Your task to perform on an android device: Go to notification settings Image 0: 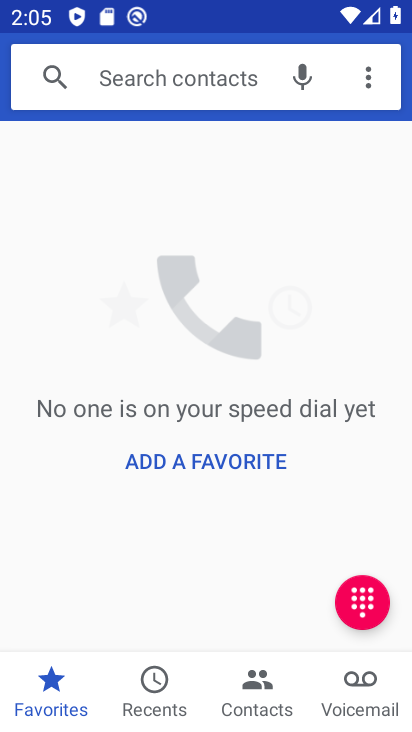
Step 0: press home button
Your task to perform on an android device: Go to notification settings Image 1: 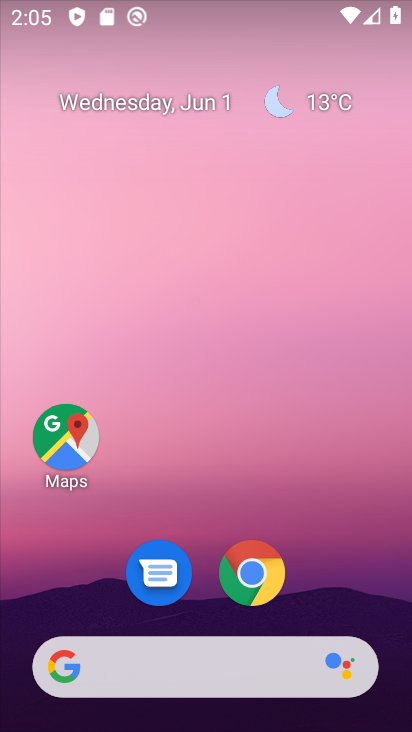
Step 1: drag from (214, 617) to (206, 110)
Your task to perform on an android device: Go to notification settings Image 2: 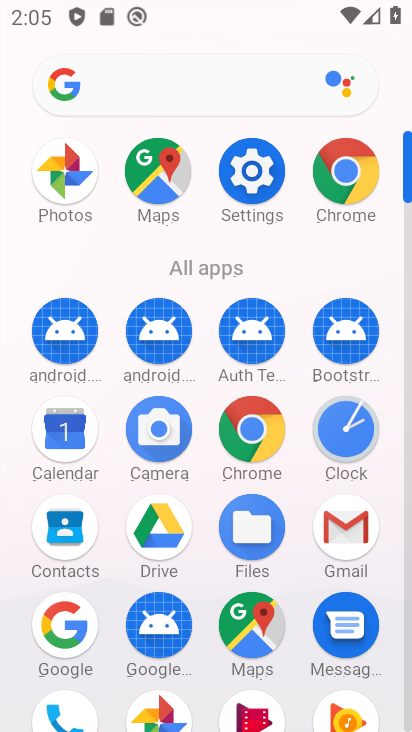
Step 2: click (253, 178)
Your task to perform on an android device: Go to notification settings Image 3: 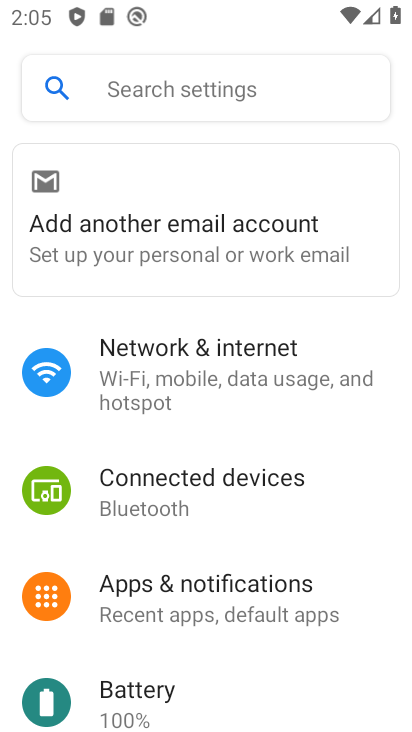
Step 3: click (223, 580)
Your task to perform on an android device: Go to notification settings Image 4: 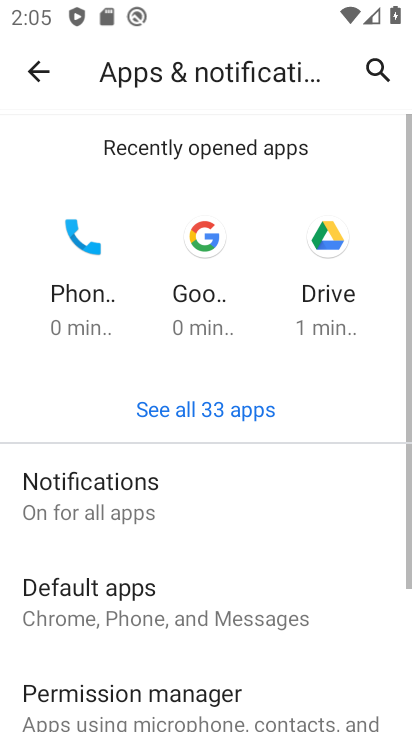
Step 4: click (132, 486)
Your task to perform on an android device: Go to notification settings Image 5: 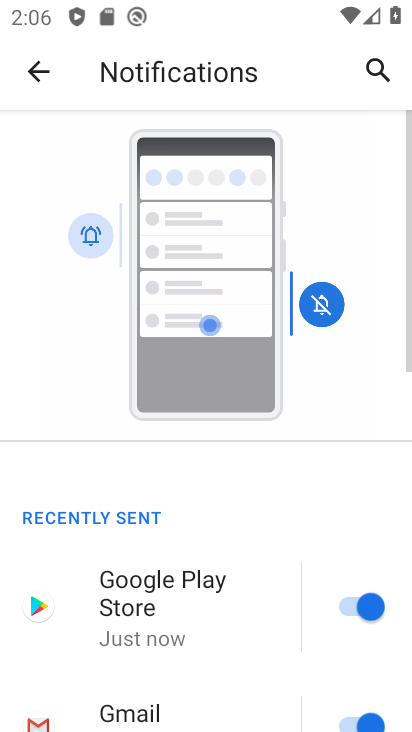
Step 5: click (168, 143)
Your task to perform on an android device: Go to notification settings Image 6: 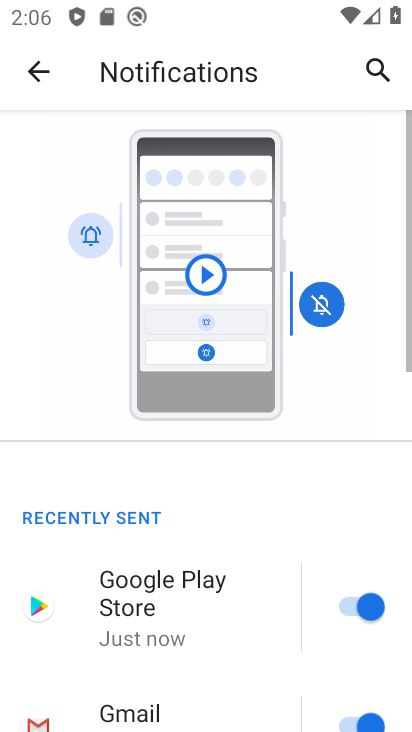
Step 6: task complete